Your task to perform on an android device: Open the calendar app, open the side menu, and click the "Day" option Image 0: 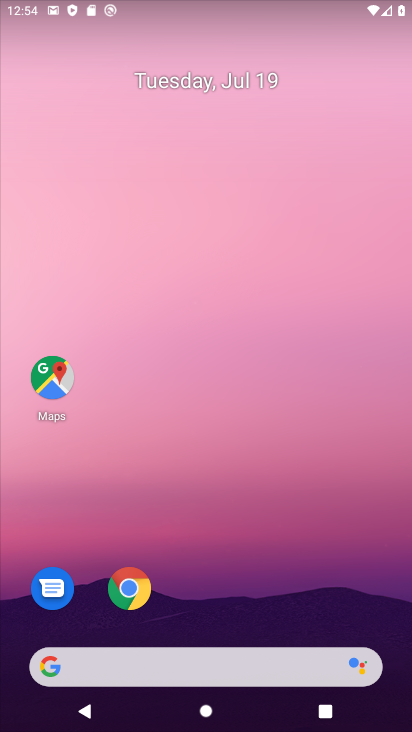
Step 0: drag from (25, 688) to (321, 21)
Your task to perform on an android device: Open the calendar app, open the side menu, and click the "Day" option Image 1: 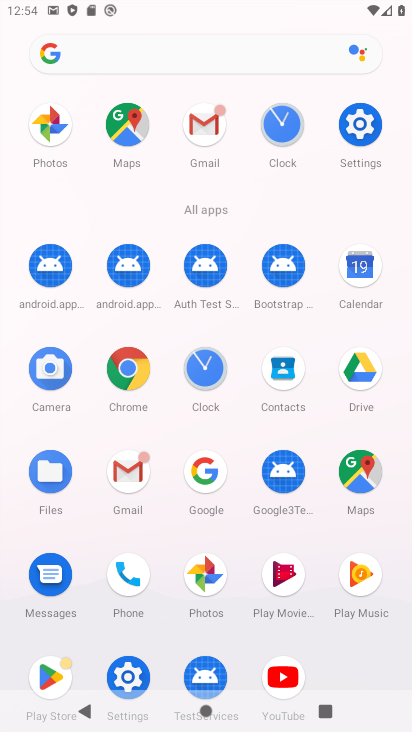
Step 1: click (369, 276)
Your task to perform on an android device: Open the calendar app, open the side menu, and click the "Day" option Image 2: 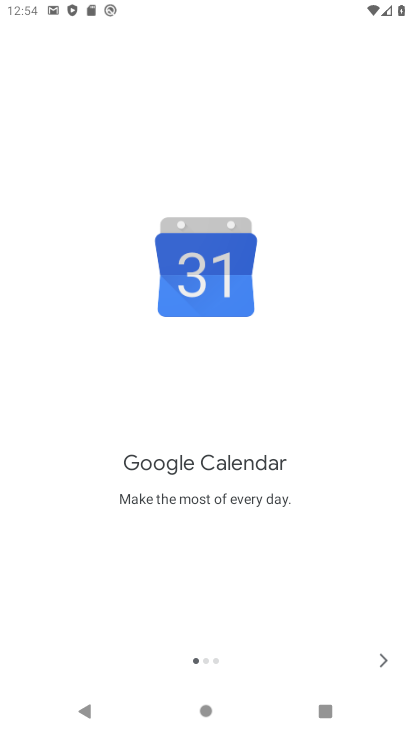
Step 2: click (383, 666)
Your task to perform on an android device: Open the calendar app, open the side menu, and click the "Day" option Image 3: 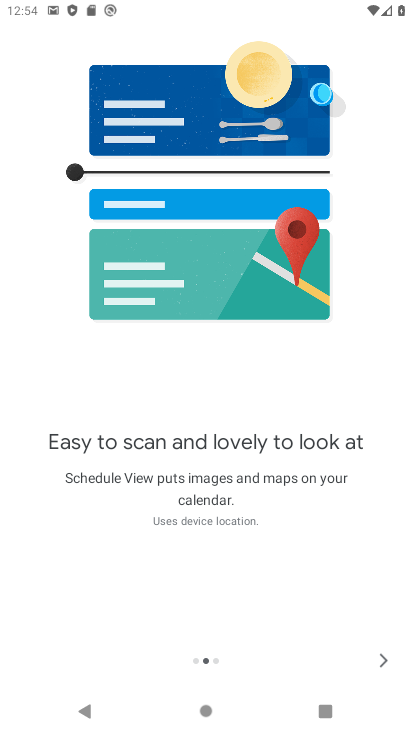
Step 3: click (380, 666)
Your task to perform on an android device: Open the calendar app, open the side menu, and click the "Day" option Image 4: 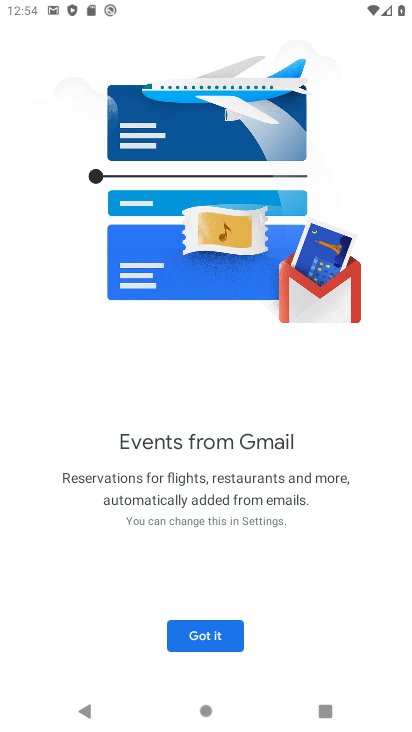
Step 4: click (209, 635)
Your task to perform on an android device: Open the calendar app, open the side menu, and click the "Day" option Image 5: 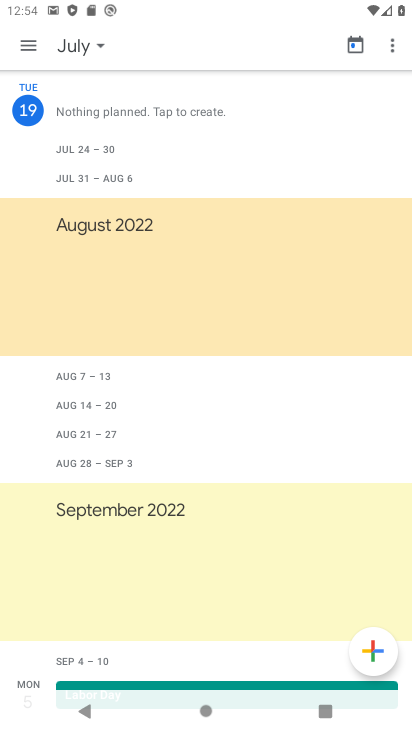
Step 5: click (89, 46)
Your task to perform on an android device: Open the calendar app, open the side menu, and click the "Day" option Image 6: 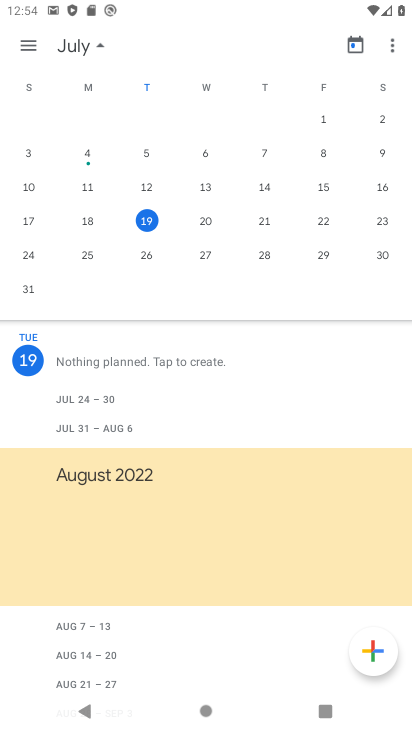
Step 6: click (24, 54)
Your task to perform on an android device: Open the calendar app, open the side menu, and click the "Day" option Image 7: 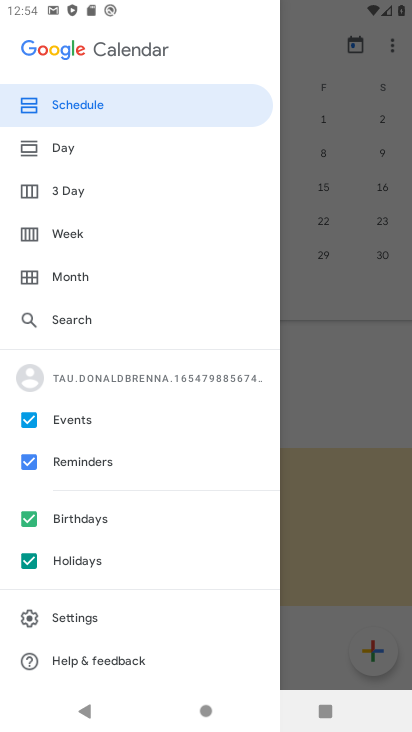
Step 7: click (72, 151)
Your task to perform on an android device: Open the calendar app, open the side menu, and click the "Day" option Image 8: 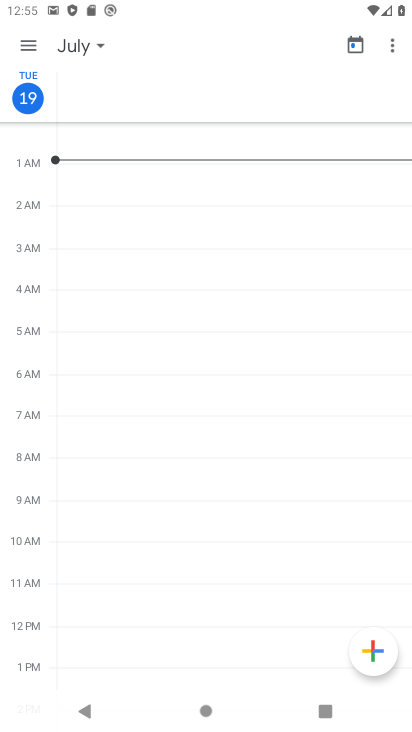
Step 8: task complete